Your task to perform on an android device: Go to location settings Image 0: 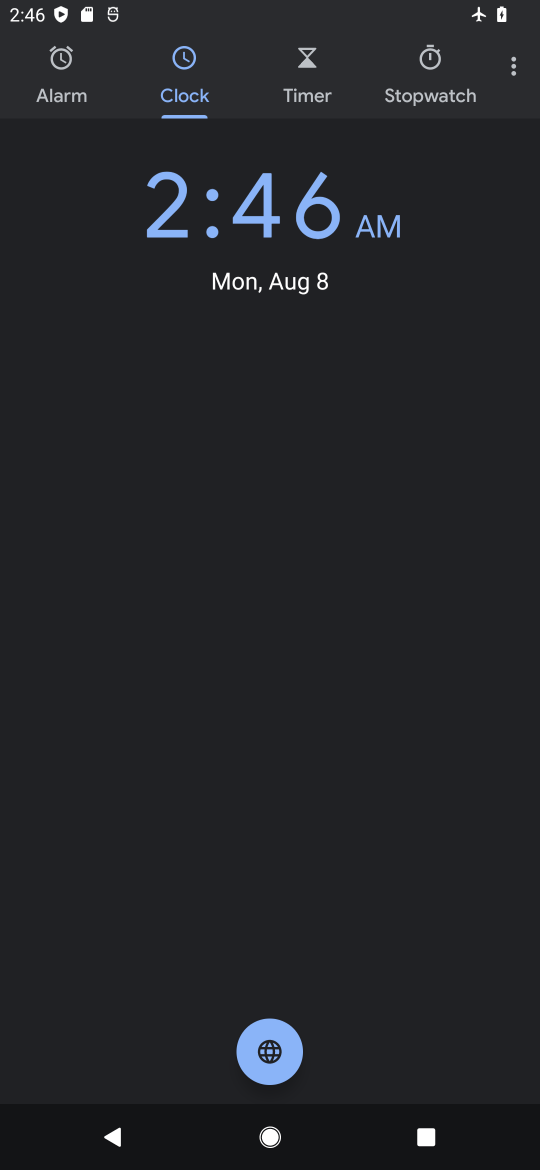
Step 0: press home button
Your task to perform on an android device: Go to location settings Image 1: 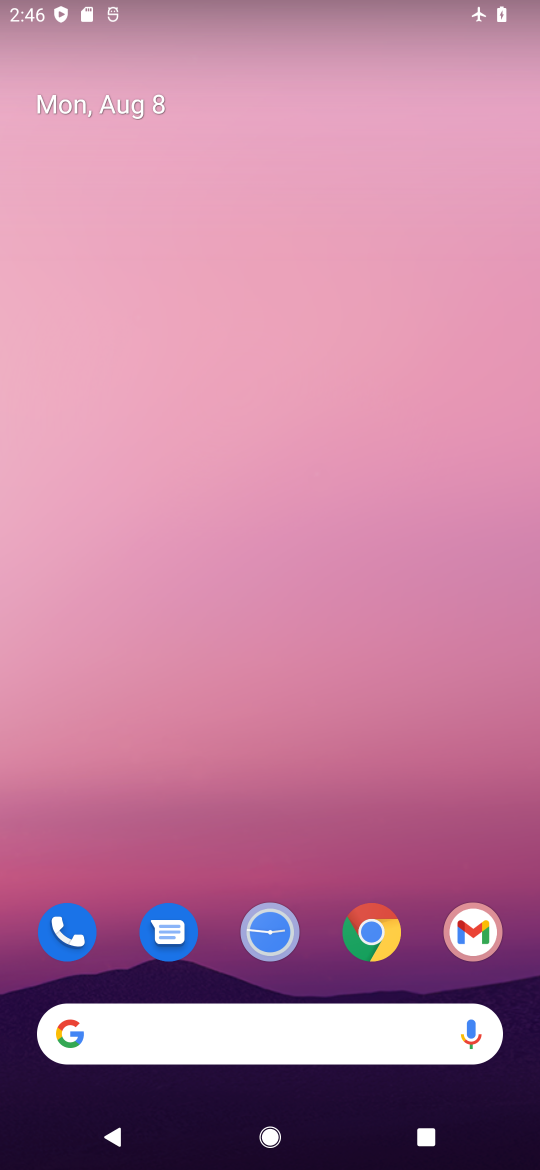
Step 1: drag from (412, 850) to (448, 154)
Your task to perform on an android device: Go to location settings Image 2: 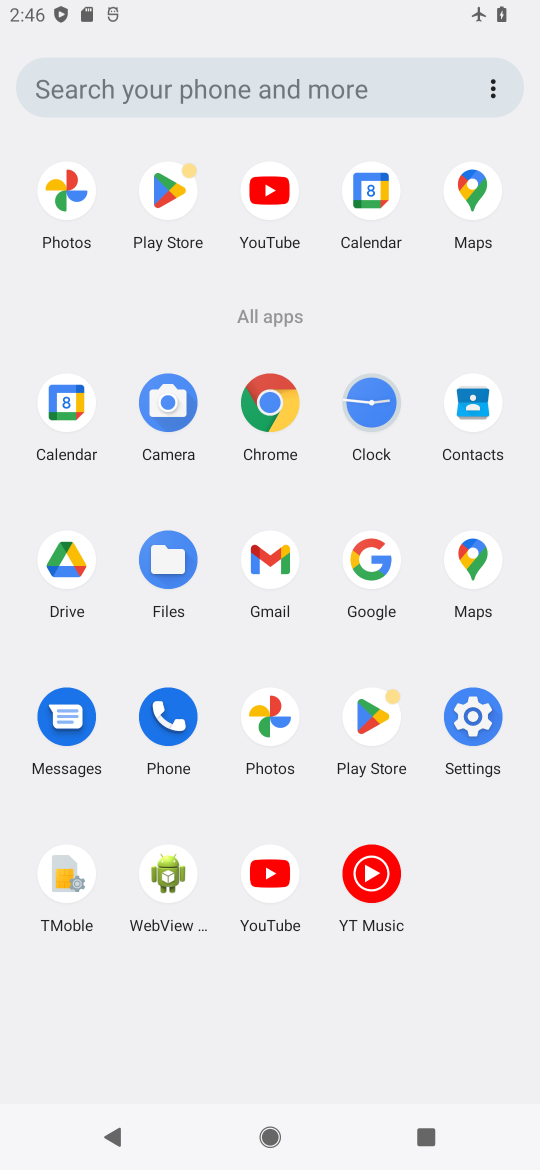
Step 2: click (474, 729)
Your task to perform on an android device: Go to location settings Image 3: 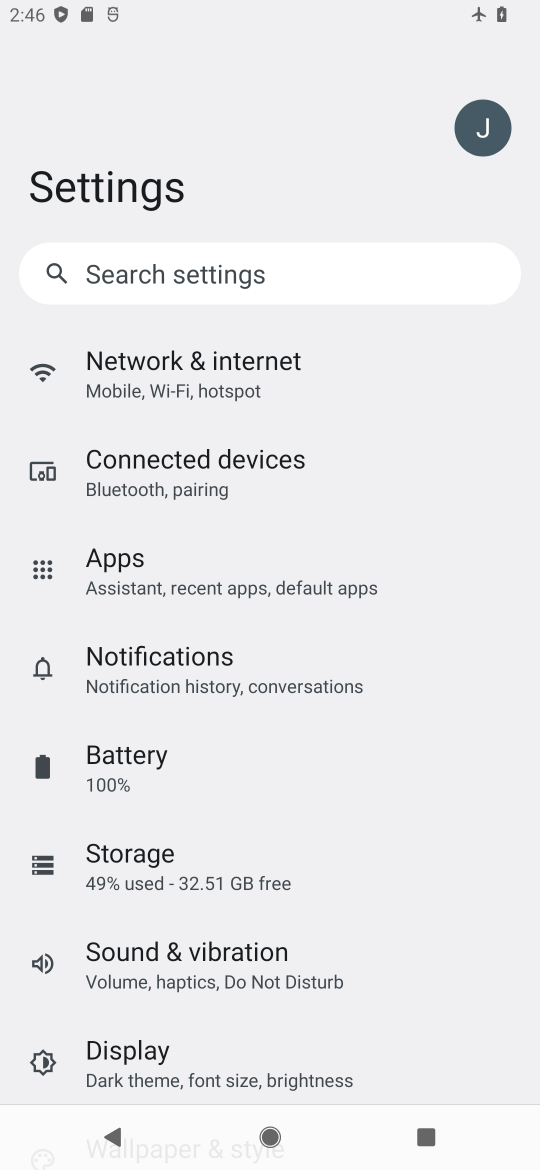
Step 3: drag from (293, 849) to (415, 383)
Your task to perform on an android device: Go to location settings Image 4: 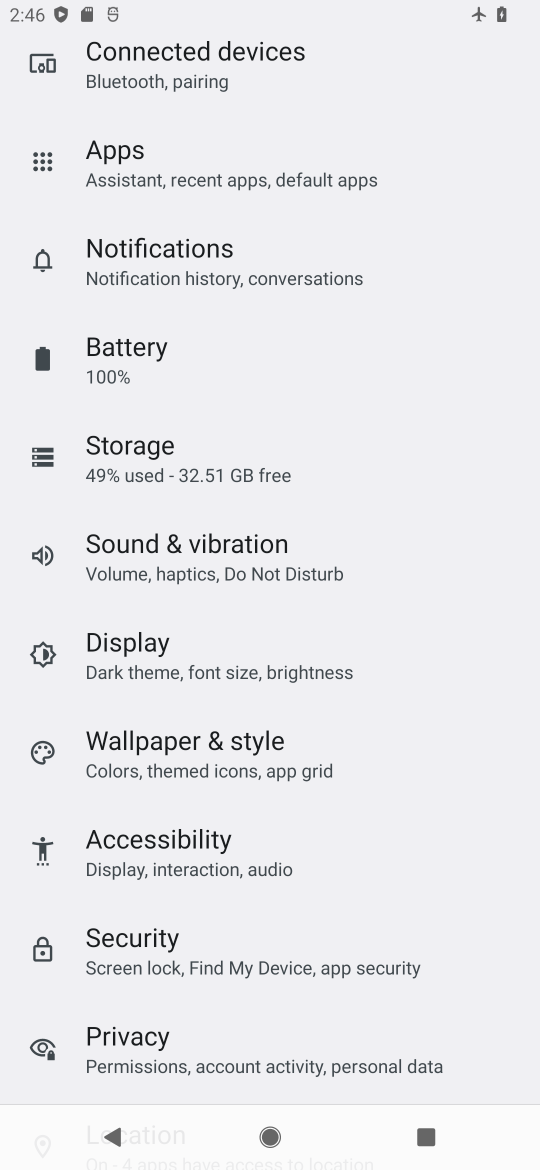
Step 4: drag from (350, 367) to (403, 371)
Your task to perform on an android device: Go to location settings Image 5: 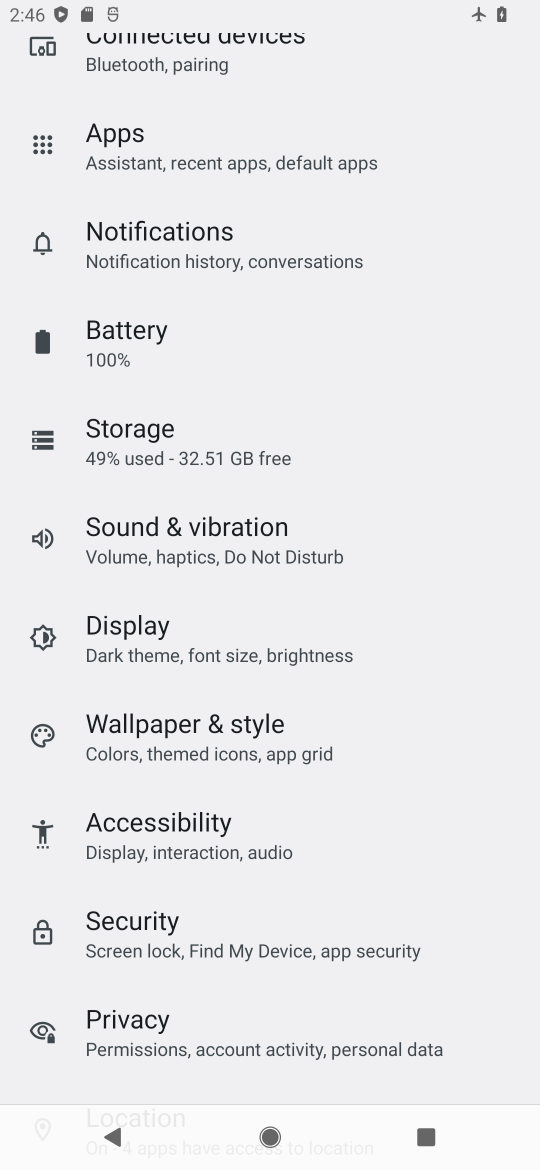
Step 5: drag from (379, 815) to (463, 495)
Your task to perform on an android device: Go to location settings Image 6: 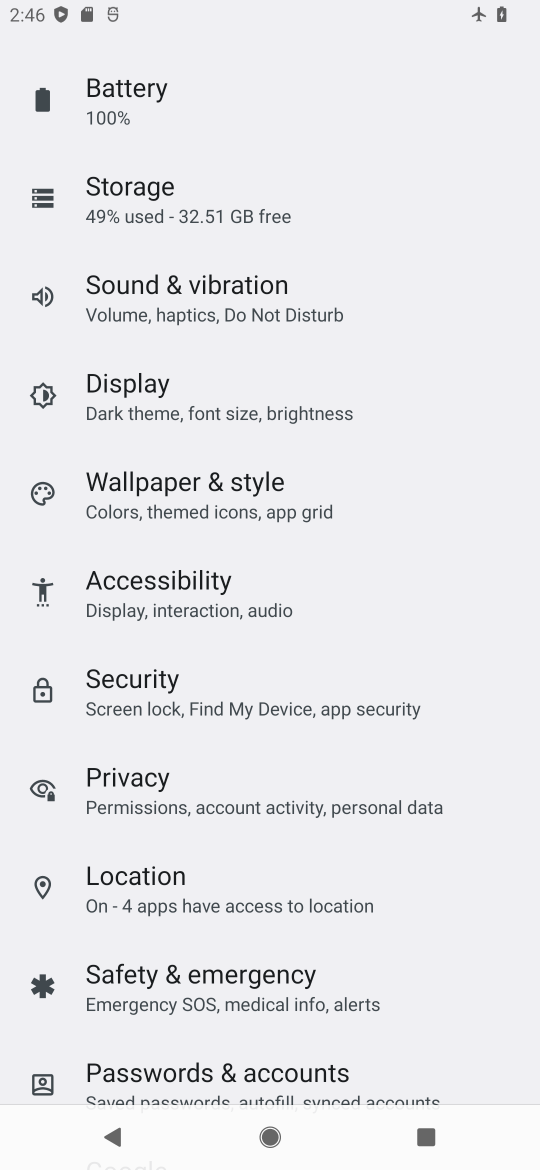
Step 6: click (191, 886)
Your task to perform on an android device: Go to location settings Image 7: 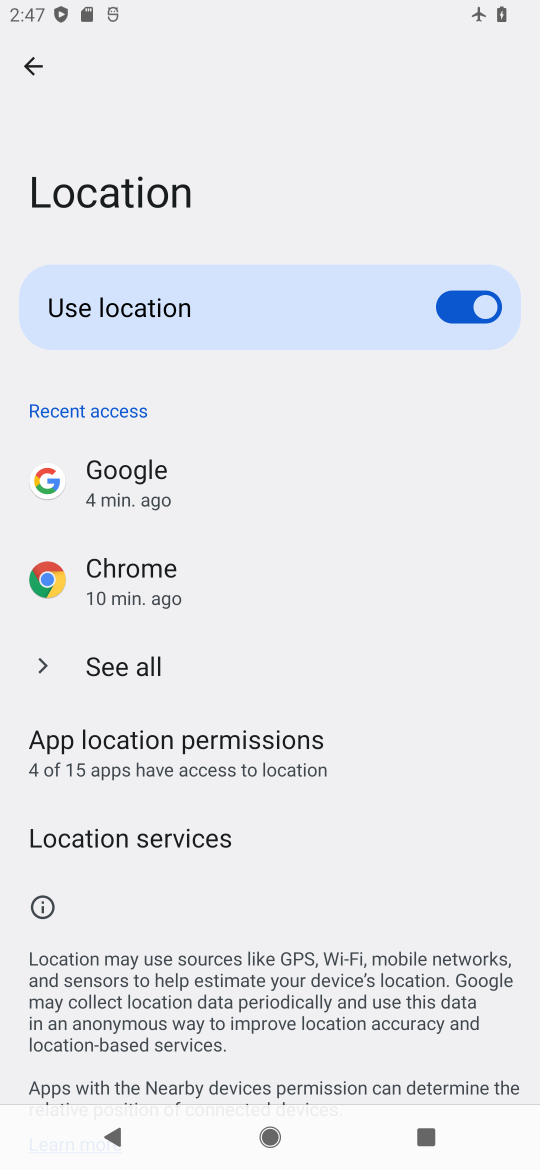
Step 7: task complete